Your task to perform on an android device: check storage Image 0: 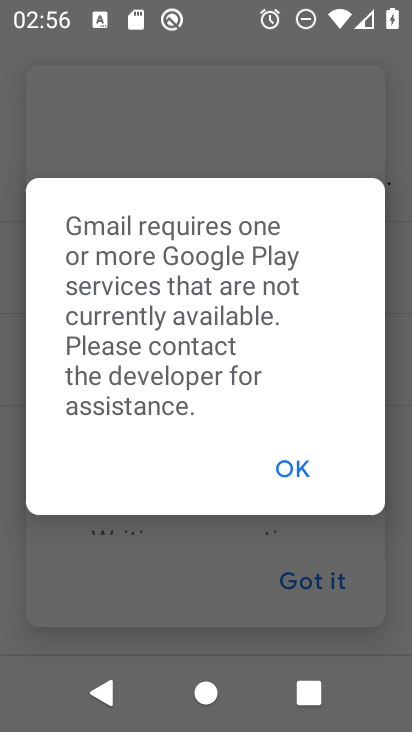
Step 0: press home button
Your task to perform on an android device: check storage Image 1: 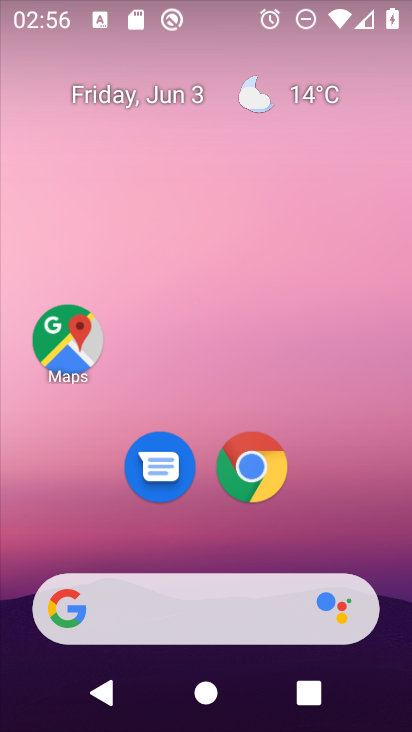
Step 1: drag from (393, 610) to (326, 115)
Your task to perform on an android device: check storage Image 2: 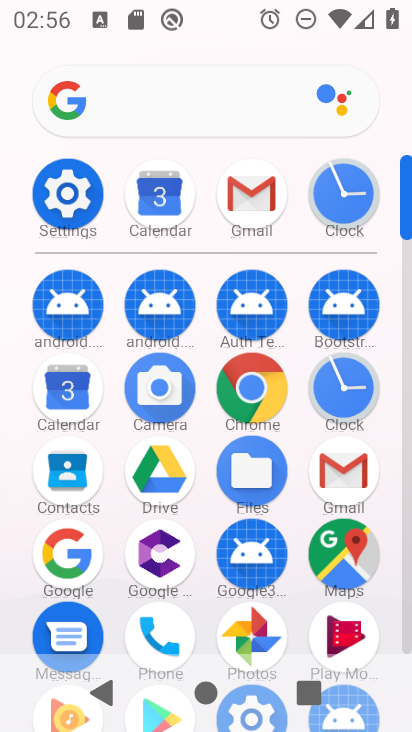
Step 2: click (404, 631)
Your task to perform on an android device: check storage Image 3: 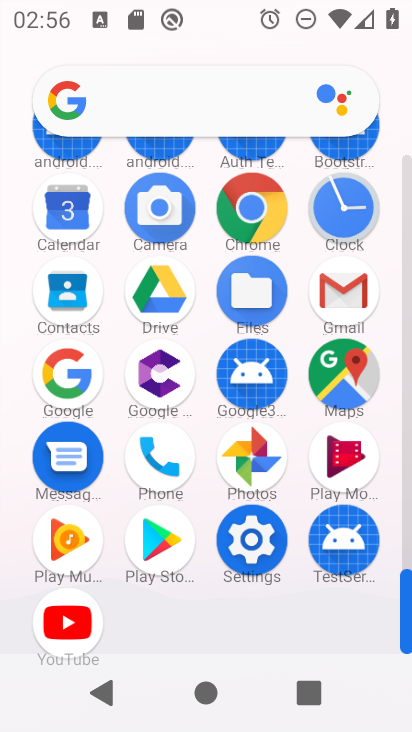
Step 3: click (254, 535)
Your task to perform on an android device: check storage Image 4: 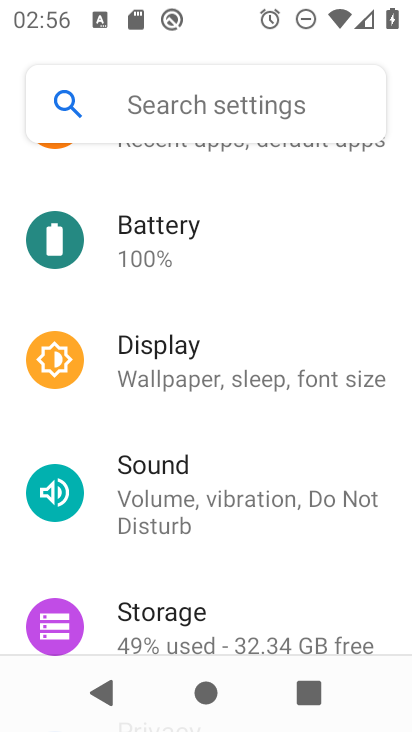
Step 4: drag from (320, 583) to (313, 173)
Your task to perform on an android device: check storage Image 5: 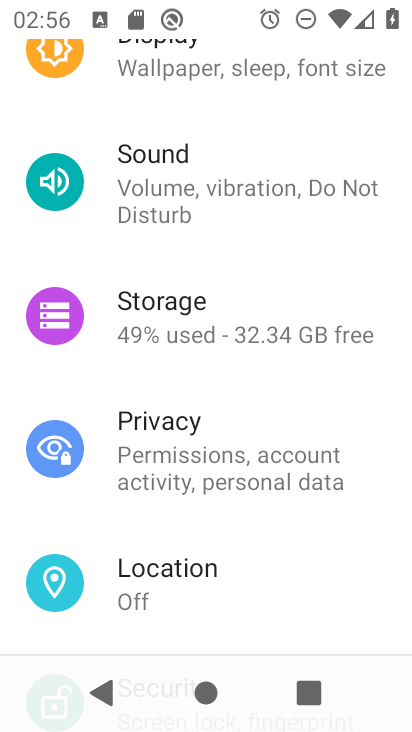
Step 5: click (172, 324)
Your task to perform on an android device: check storage Image 6: 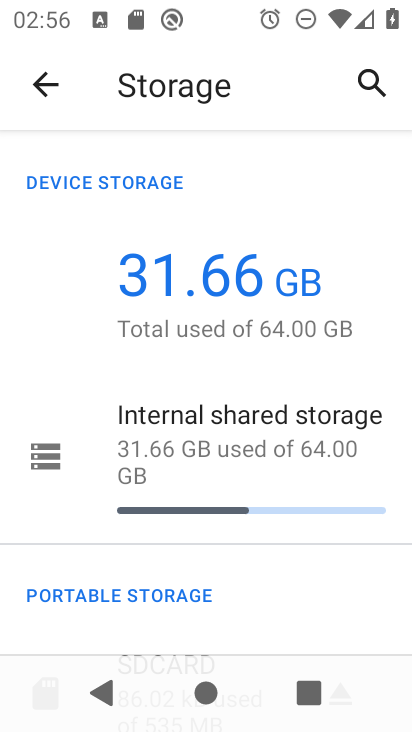
Step 6: task complete